Your task to perform on an android device: empty trash in the gmail app Image 0: 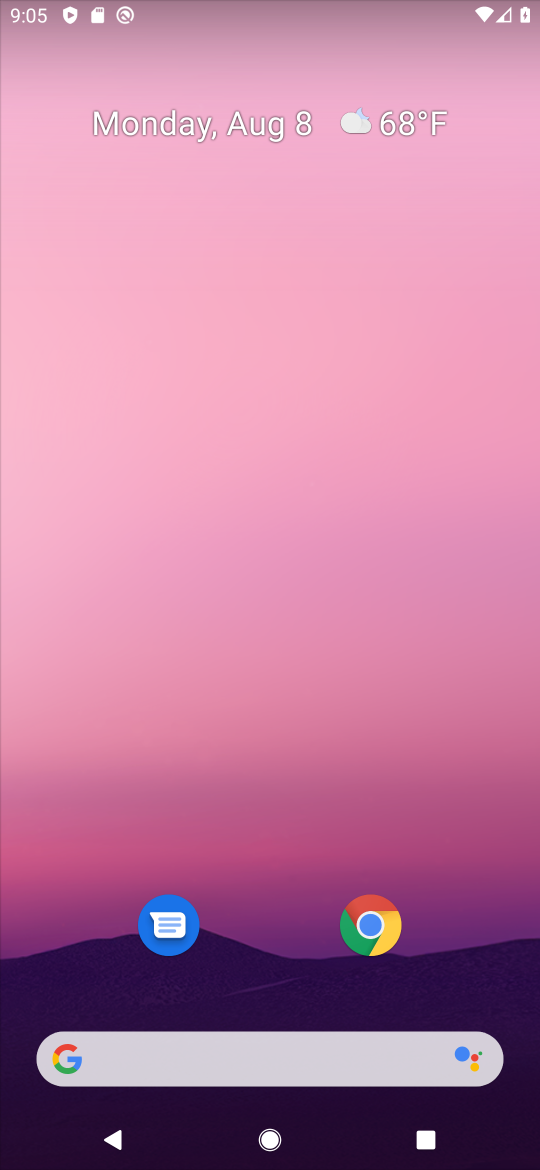
Step 0: drag from (299, 927) to (282, 55)
Your task to perform on an android device: empty trash in the gmail app Image 1: 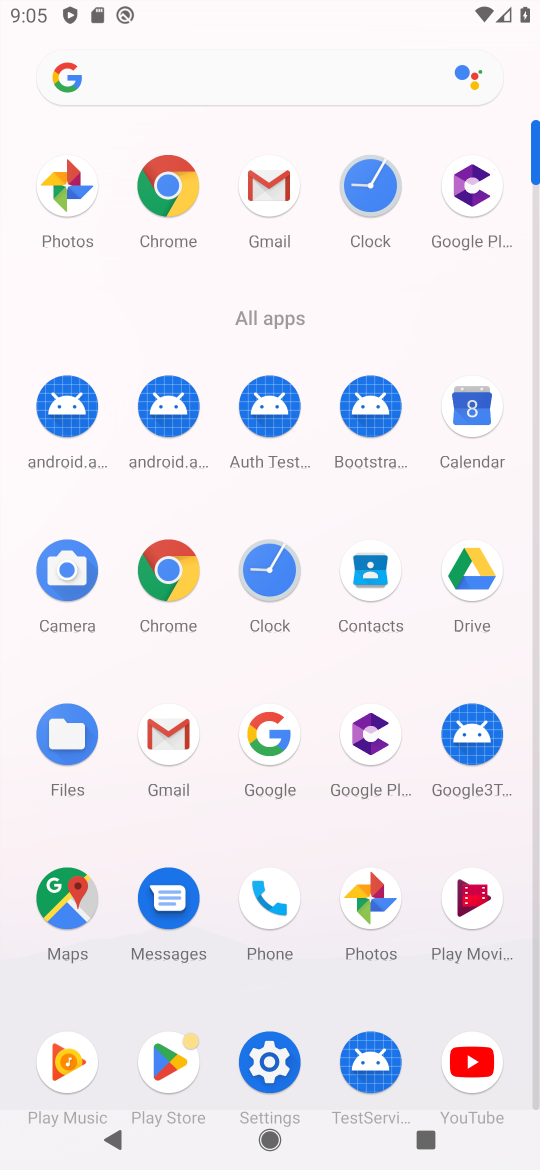
Step 1: click (169, 726)
Your task to perform on an android device: empty trash in the gmail app Image 2: 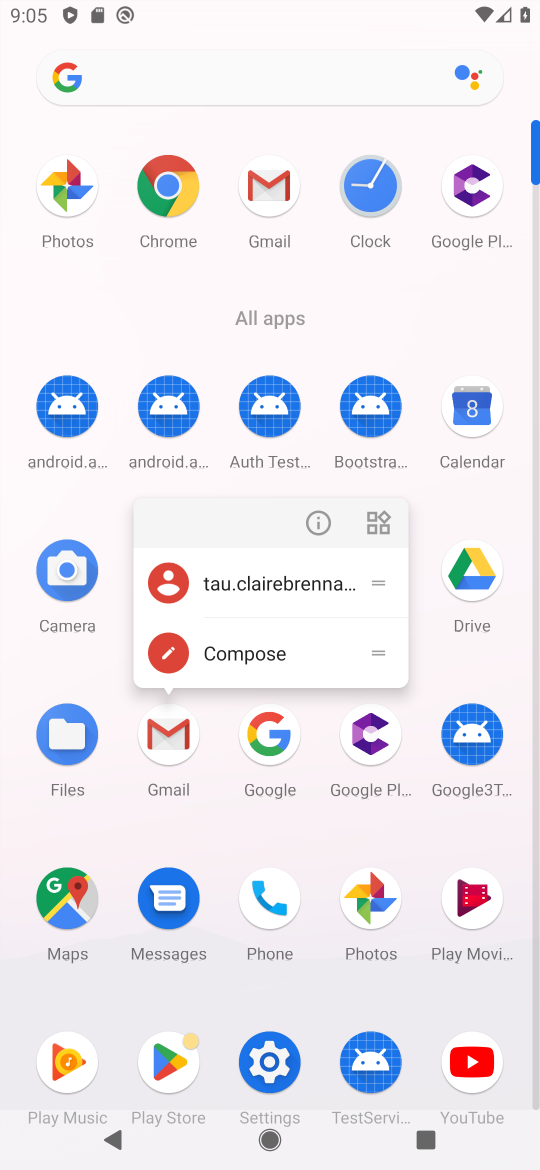
Step 2: click (174, 734)
Your task to perform on an android device: empty trash in the gmail app Image 3: 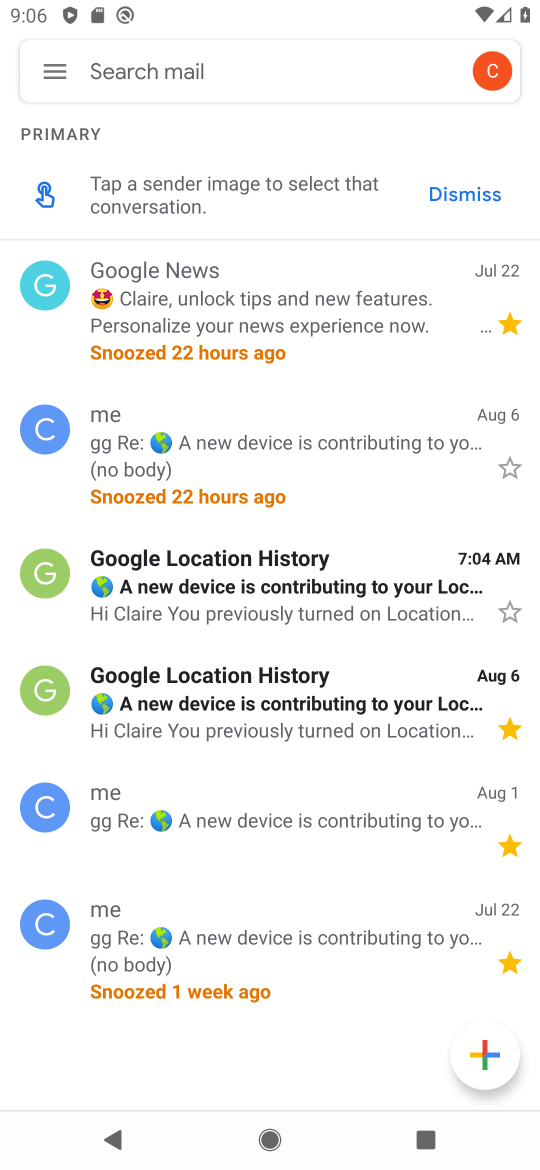
Step 3: click (51, 66)
Your task to perform on an android device: empty trash in the gmail app Image 4: 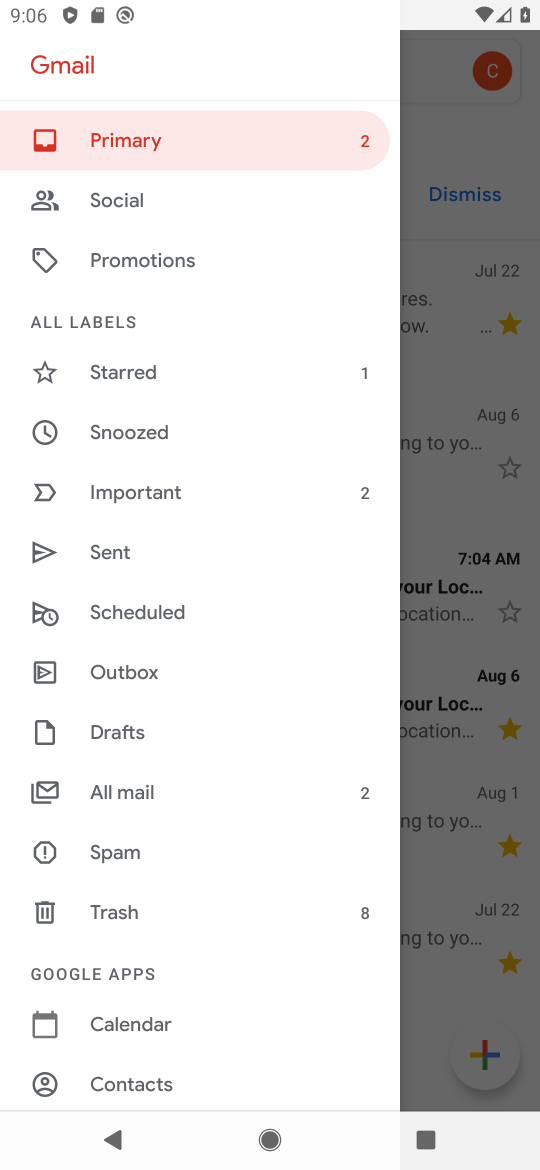
Step 4: click (101, 916)
Your task to perform on an android device: empty trash in the gmail app Image 5: 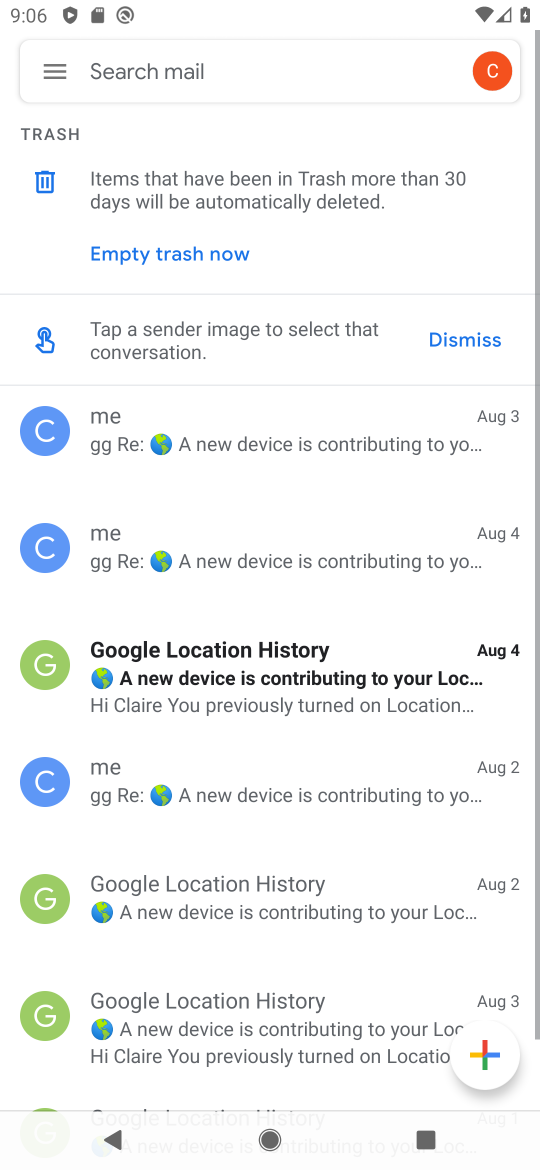
Step 5: click (180, 251)
Your task to perform on an android device: empty trash in the gmail app Image 6: 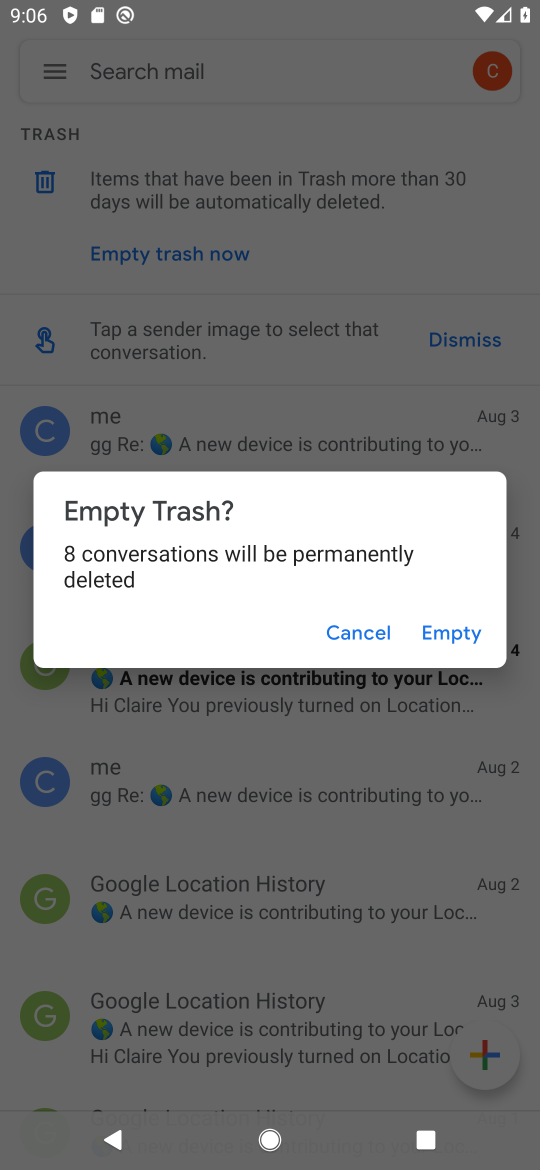
Step 6: click (461, 623)
Your task to perform on an android device: empty trash in the gmail app Image 7: 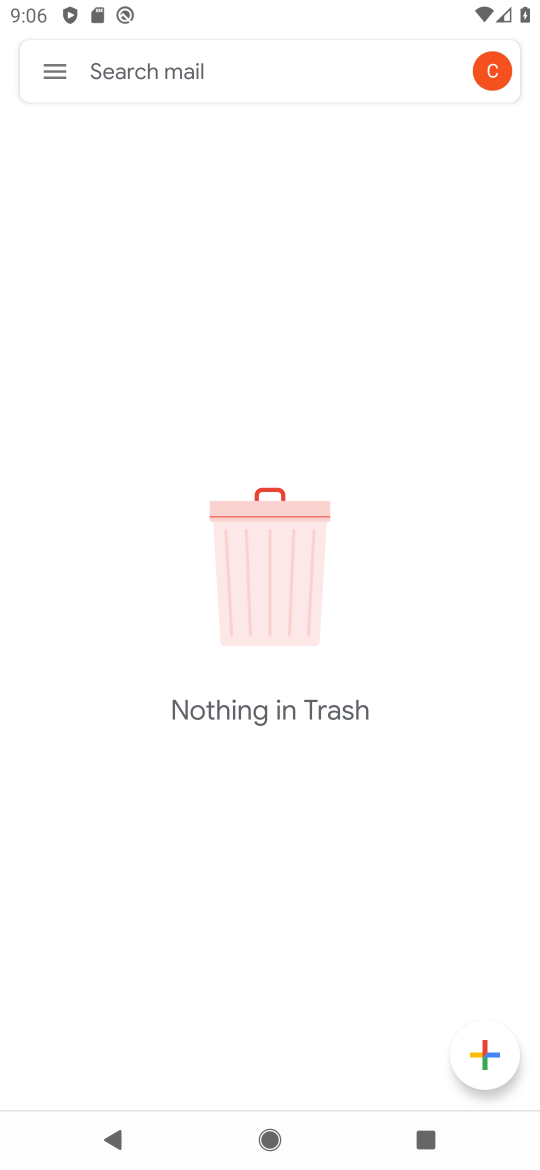
Step 7: task complete